Your task to perform on an android device: empty trash in google photos Image 0: 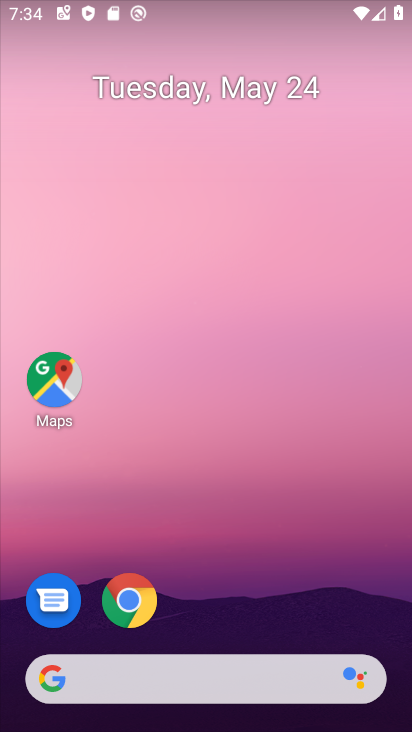
Step 0: drag from (256, 491) to (325, 53)
Your task to perform on an android device: empty trash in google photos Image 1: 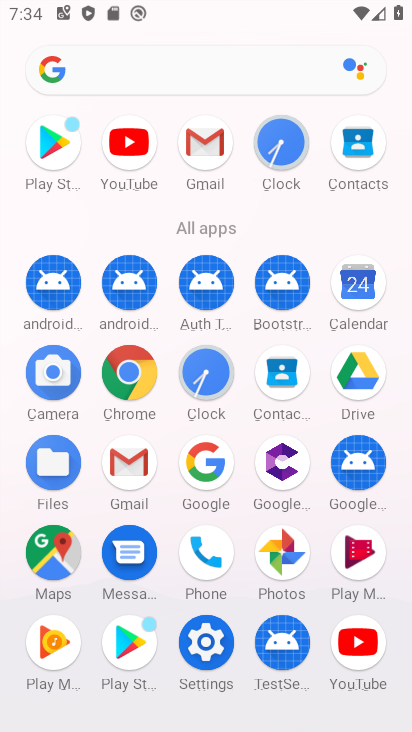
Step 1: click (285, 556)
Your task to perform on an android device: empty trash in google photos Image 2: 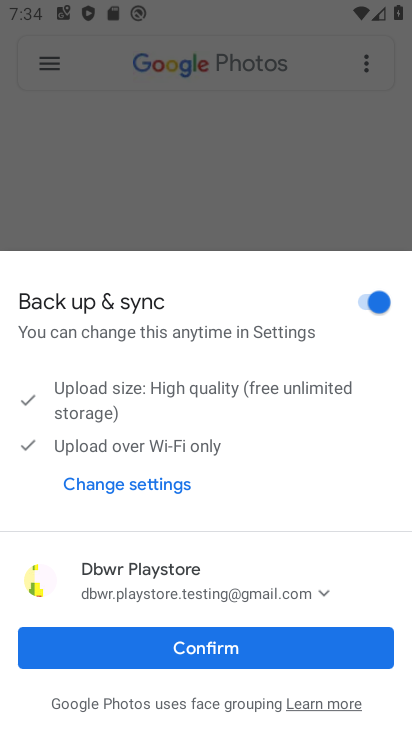
Step 2: click (226, 651)
Your task to perform on an android device: empty trash in google photos Image 3: 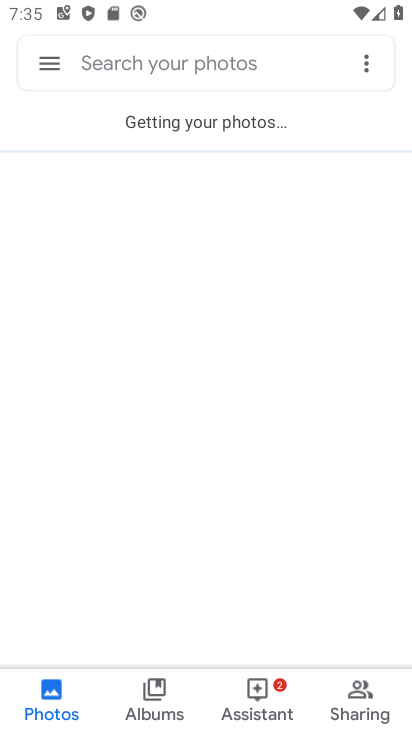
Step 3: click (49, 63)
Your task to perform on an android device: empty trash in google photos Image 4: 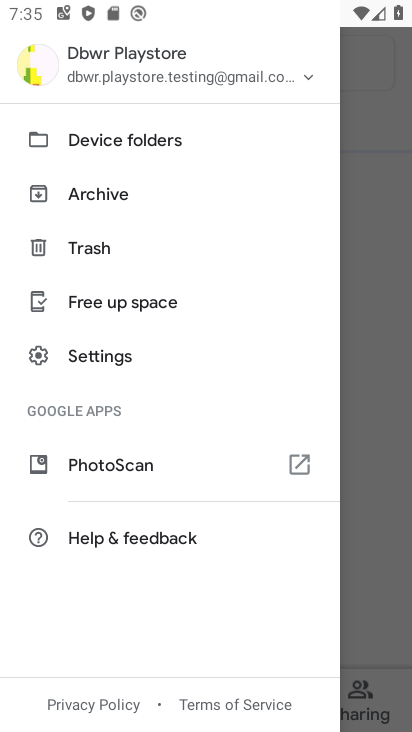
Step 4: click (83, 248)
Your task to perform on an android device: empty trash in google photos Image 5: 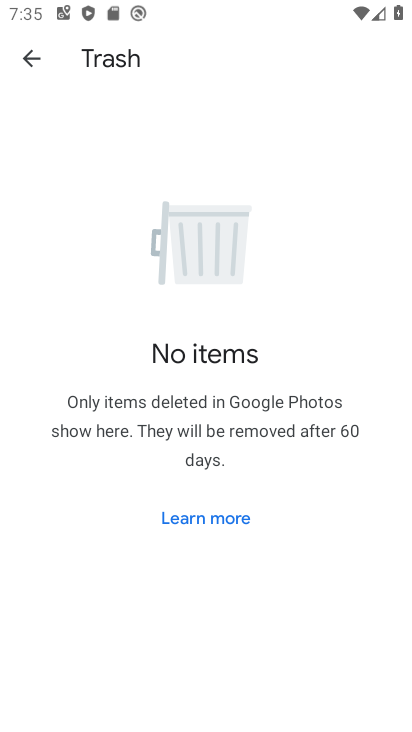
Step 5: task complete